Your task to perform on an android device: Go to Google maps Image 0: 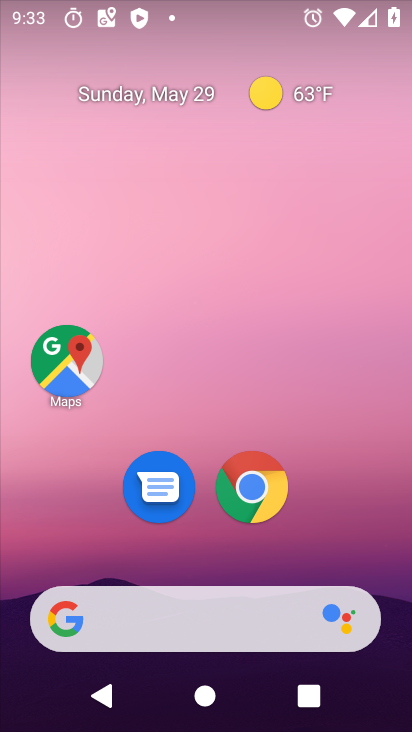
Step 0: drag from (207, 611) to (217, 181)
Your task to perform on an android device: Go to Google maps Image 1: 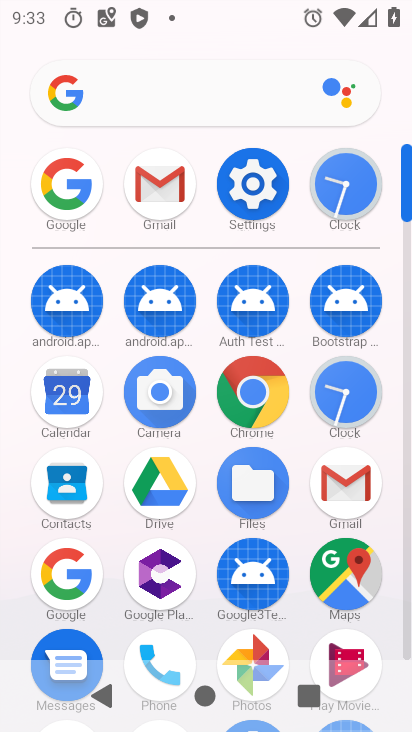
Step 1: drag from (246, 491) to (222, 247)
Your task to perform on an android device: Go to Google maps Image 2: 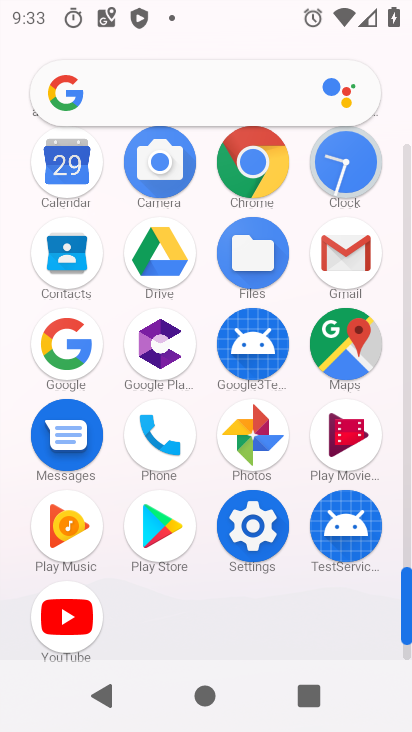
Step 2: click (354, 334)
Your task to perform on an android device: Go to Google maps Image 3: 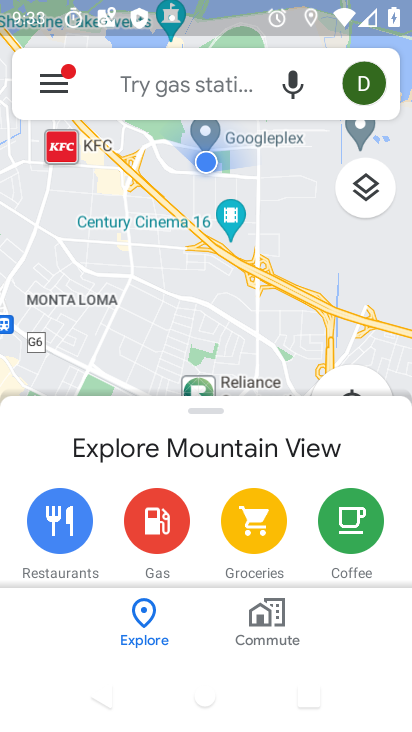
Step 3: task complete